Your task to perform on an android device: What's the weather? Image 0: 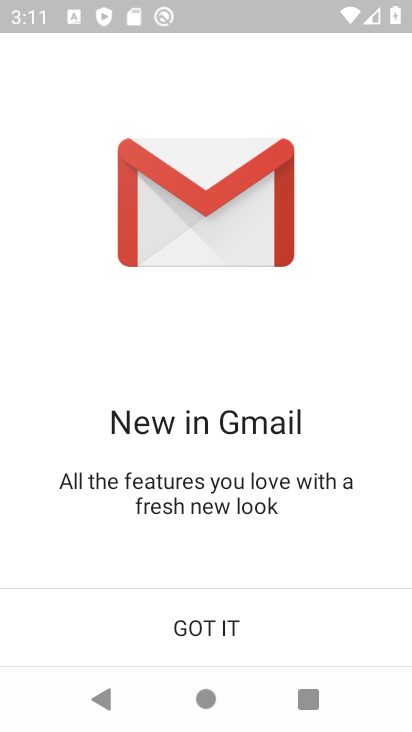
Step 0: press home button
Your task to perform on an android device: What's the weather? Image 1: 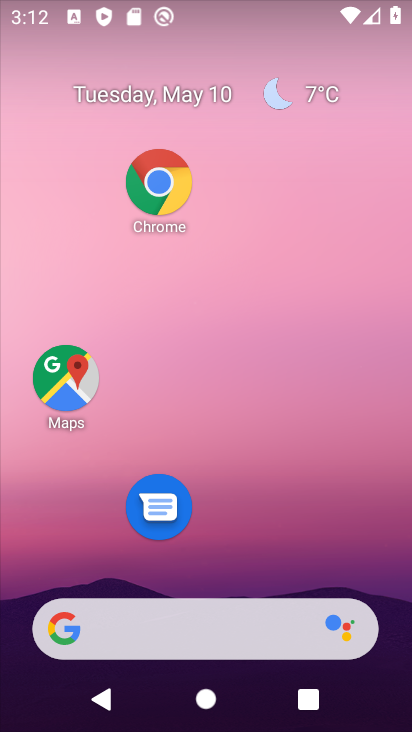
Step 1: click (242, 621)
Your task to perform on an android device: What's the weather? Image 2: 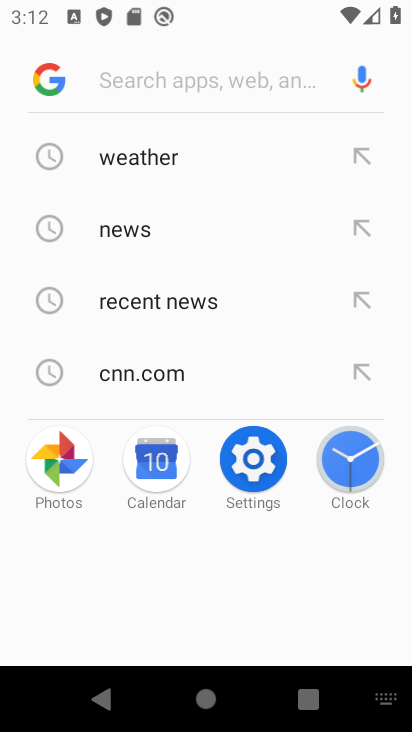
Step 2: click (141, 173)
Your task to perform on an android device: What's the weather? Image 3: 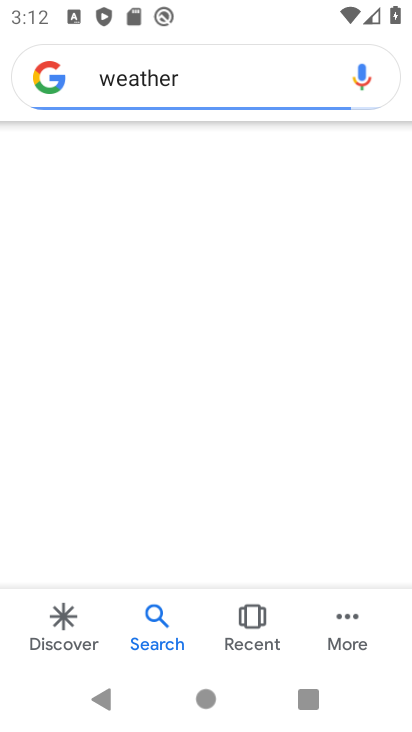
Step 3: task complete